Your task to perform on an android device: Open location settings Image 0: 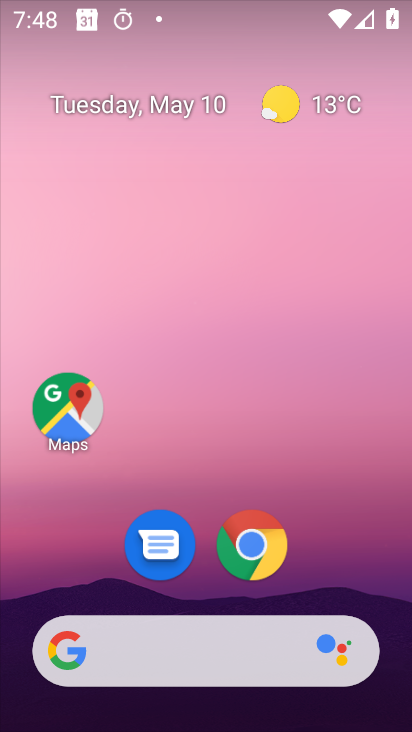
Step 0: drag from (213, 595) to (219, 107)
Your task to perform on an android device: Open location settings Image 1: 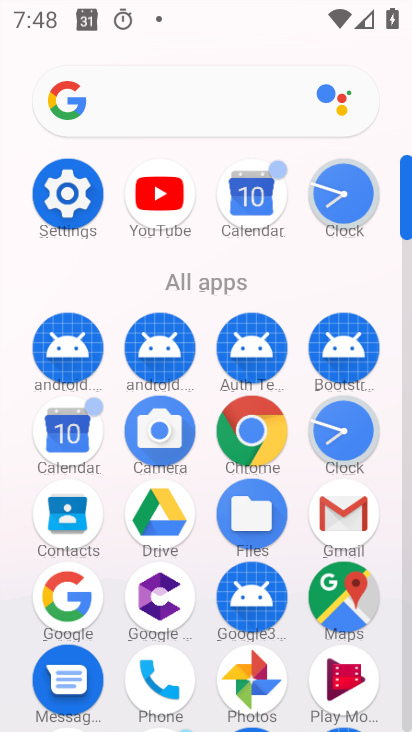
Step 1: click (64, 186)
Your task to perform on an android device: Open location settings Image 2: 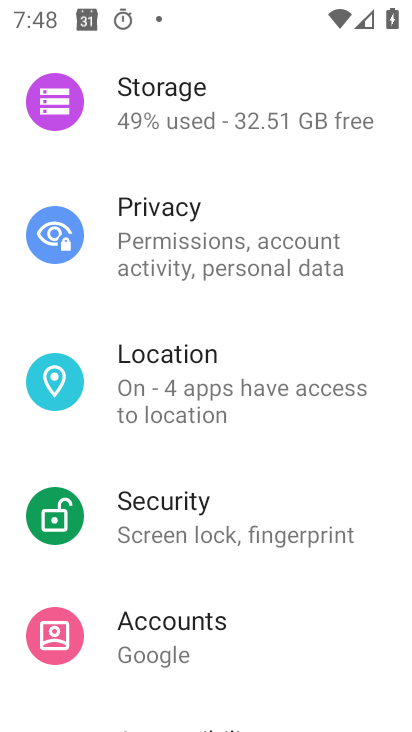
Step 2: click (238, 367)
Your task to perform on an android device: Open location settings Image 3: 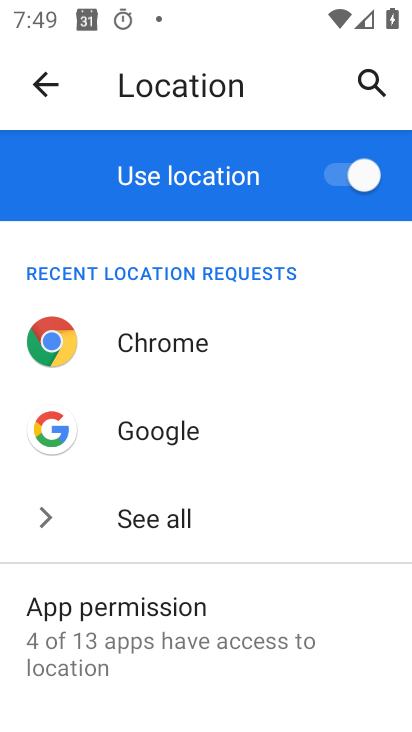
Step 3: drag from (181, 672) to (223, 125)
Your task to perform on an android device: Open location settings Image 4: 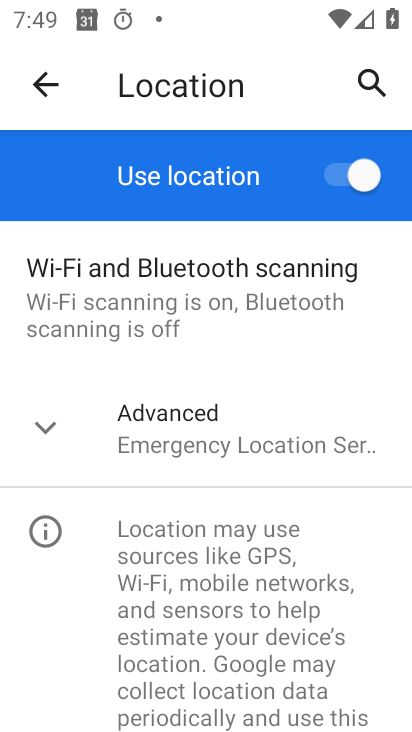
Step 4: click (53, 419)
Your task to perform on an android device: Open location settings Image 5: 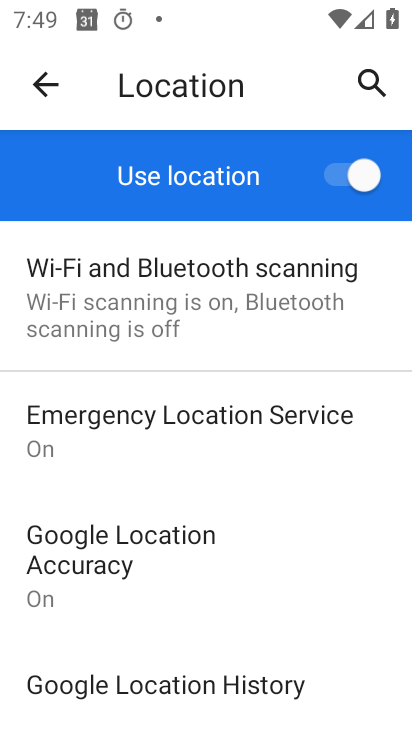
Step 5: task complete